Your task to perform on an android device: Show the shopping cart on target.com. Add logitech g933 to the cart on target.com Image 0: 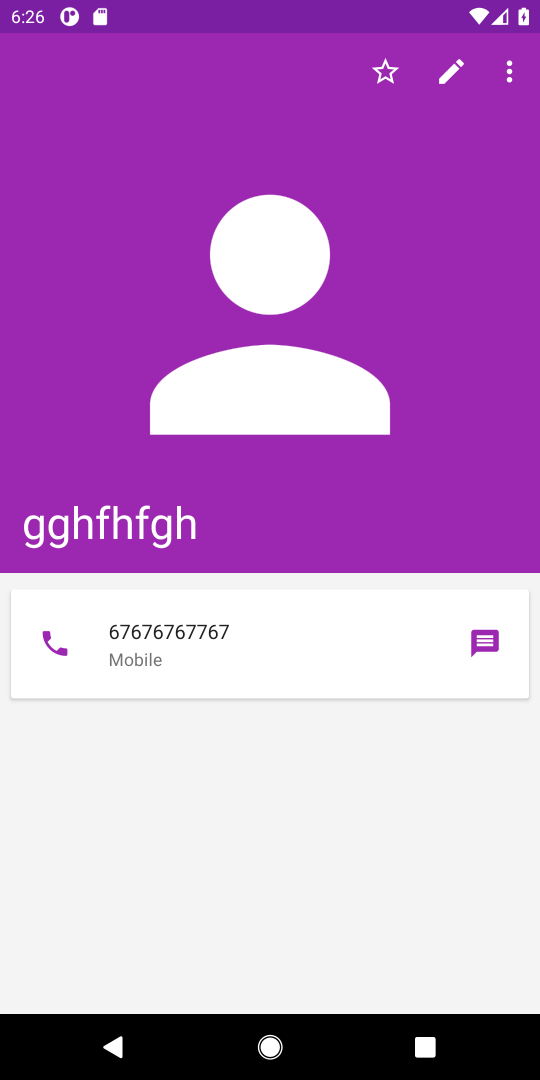
Step 0: press home button
Your task to perform on an android device: Show the shopping cart on target.com. Add logitech g933 to the cart on target.com Image 1: 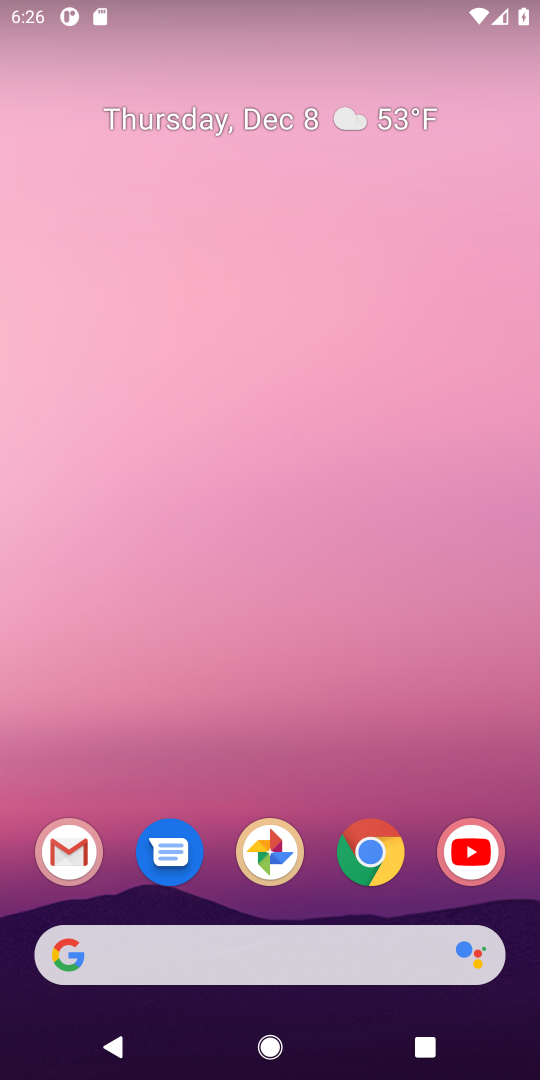
Step 1: click (293, 962)
Your task to perform on an android device: Show the shopping cart on target.com. Add logitech g933 to the cart on target.com Image 2: 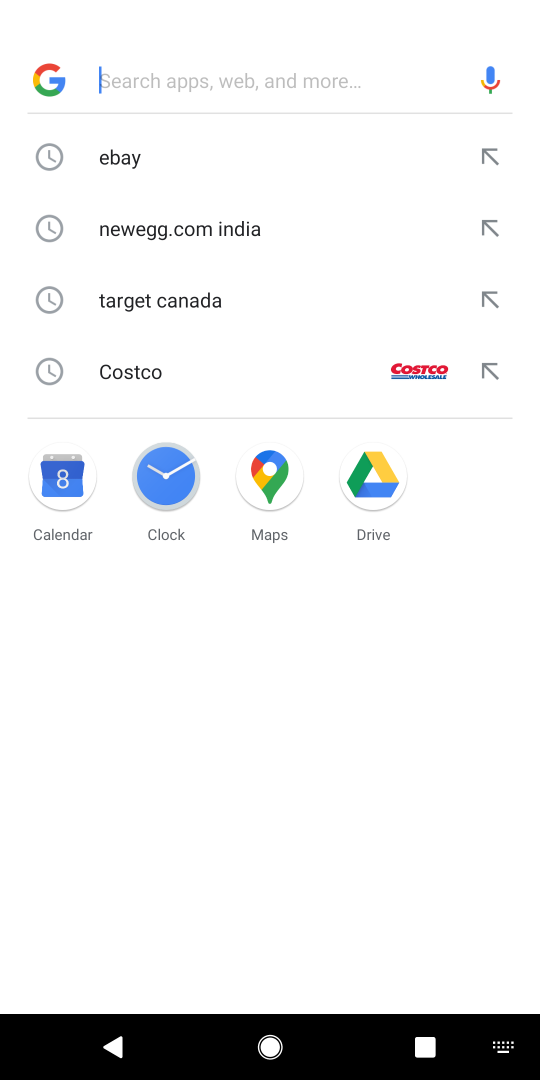
Step 2: type "target "
Your task to perform on an android device: Show the shopping cart on target.com. Add logitech g933 to the cart on target.com Image 3: 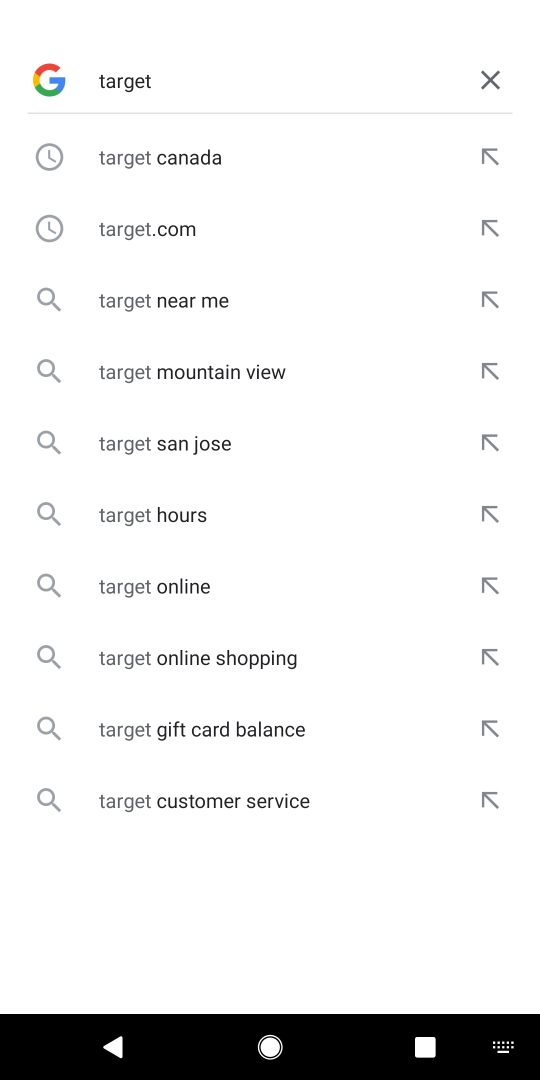
Step 3: click (140, 219)
Your task to perform on an android device: Show the shopping cart on target.com. Add logitech g933 to the cart on target.com Image 4: 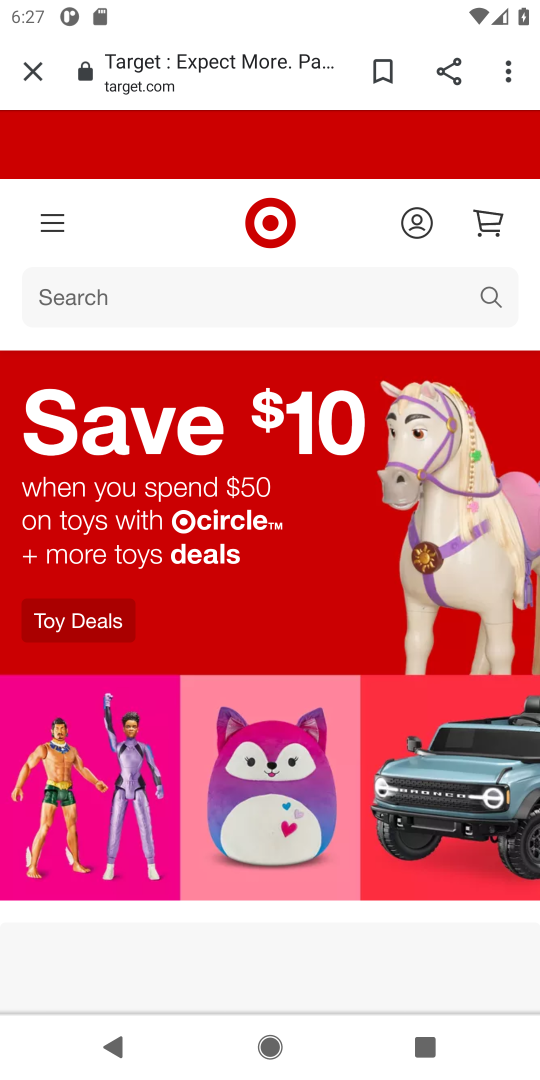
Step 4: click (231, 302)
Your task to perform on an android device: Show the shopping cart on target.com. Add logitech g933 to the cart on target.com Image 5: 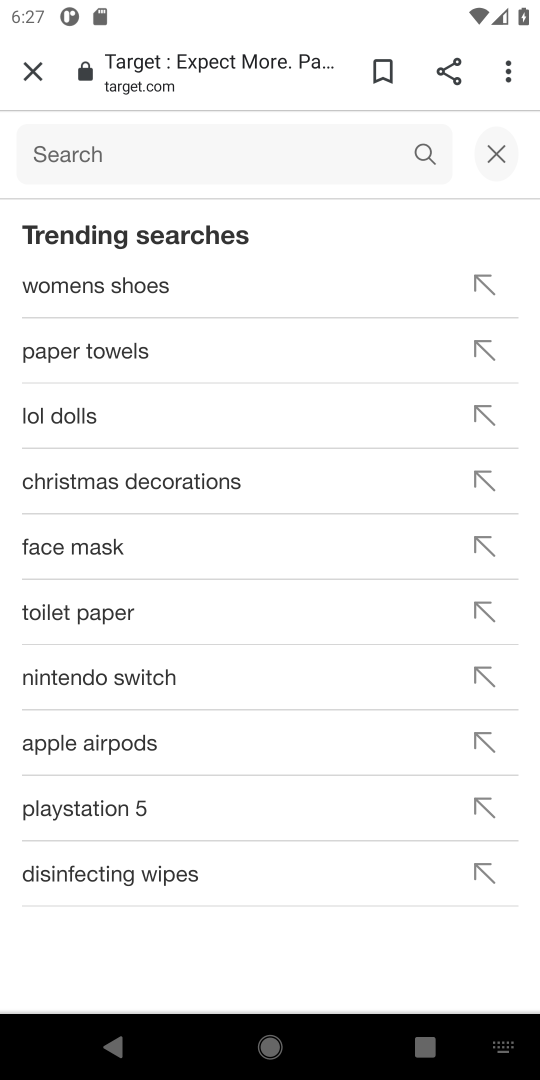
Step 5: type "logitech g933"
Your task to perform on an android device: Show the shopping cart on target.com. Add logitech g933 to the cart on target.com Image 6: 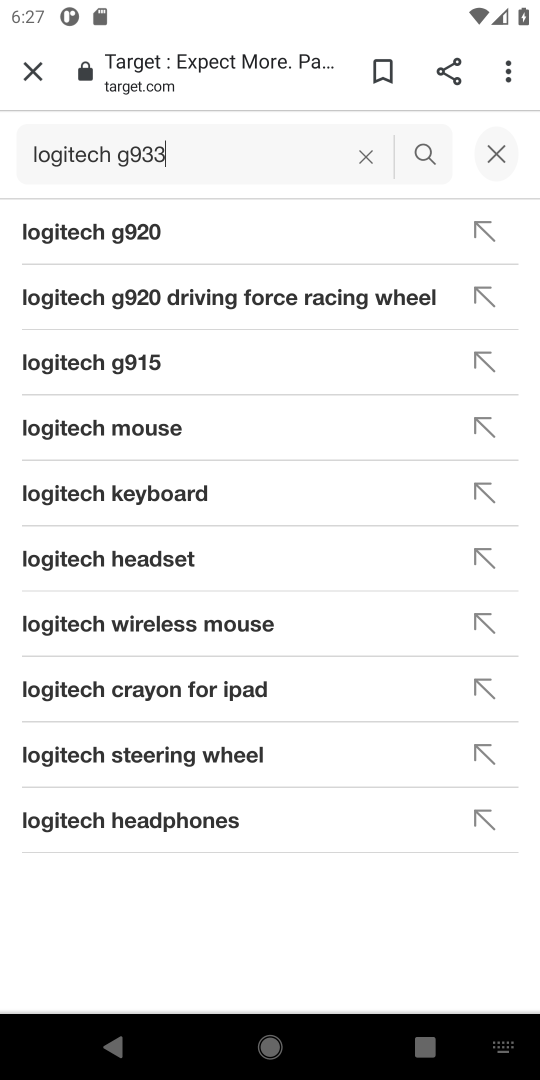
Step 6: click (414, 164)
Your task to perform on an android device: Show the shopping cart on target.com. Add logitech g933 to the cart on target.com Image 7: 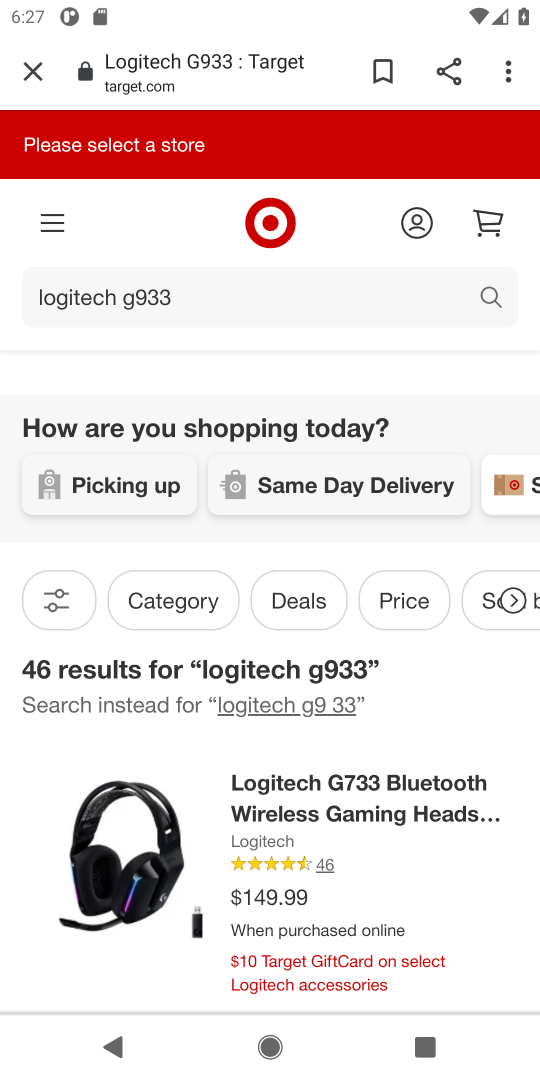
Step 7: drag from (411, 808) to (415, 553)
Your task to perform on an android device: Show the shopping cart on target.com. Add logitech g933 to the cart on target.com Image 8: 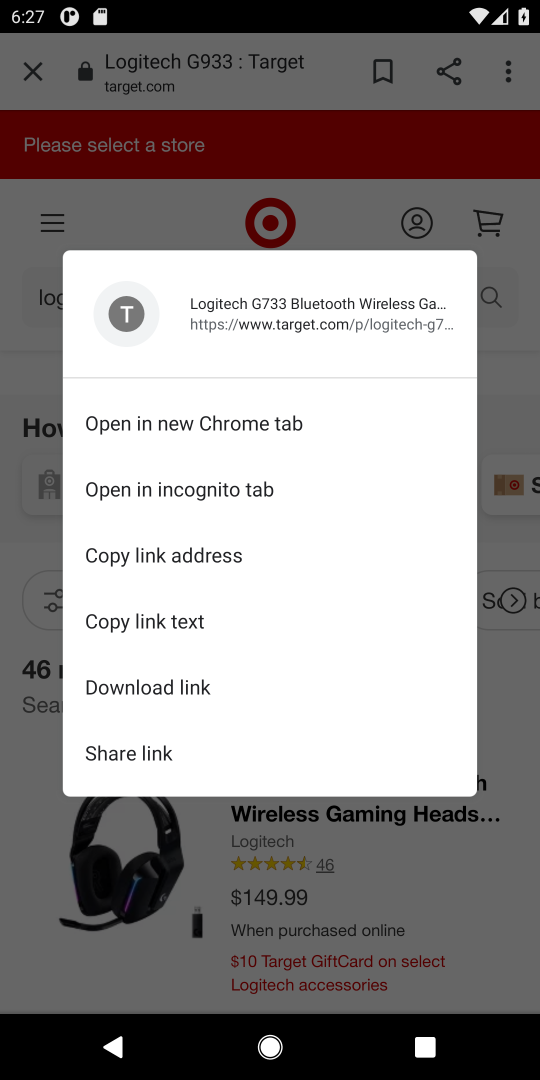
Step 8: click (442, 913)
Your task to perform on an android device: Show the shopping cart on target.com. Add logitech g933 to the cart on target.com Image 9: 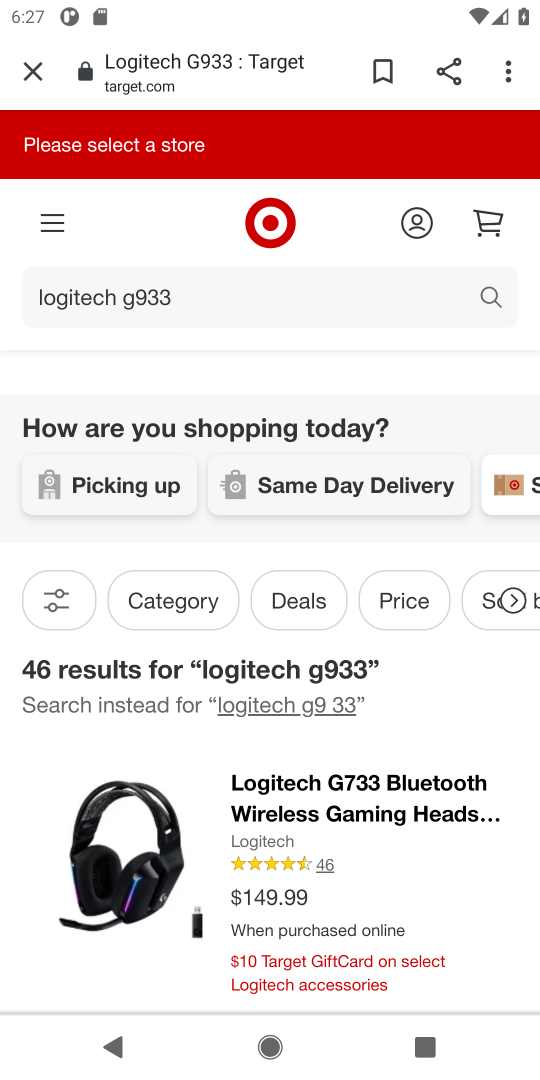
Step 9: drag from (454, 850) to (496, 408)
Your task to perform on an android device: Show the shopping cart on target.com. Add logitech g933 to the cart on target.com Image 10: 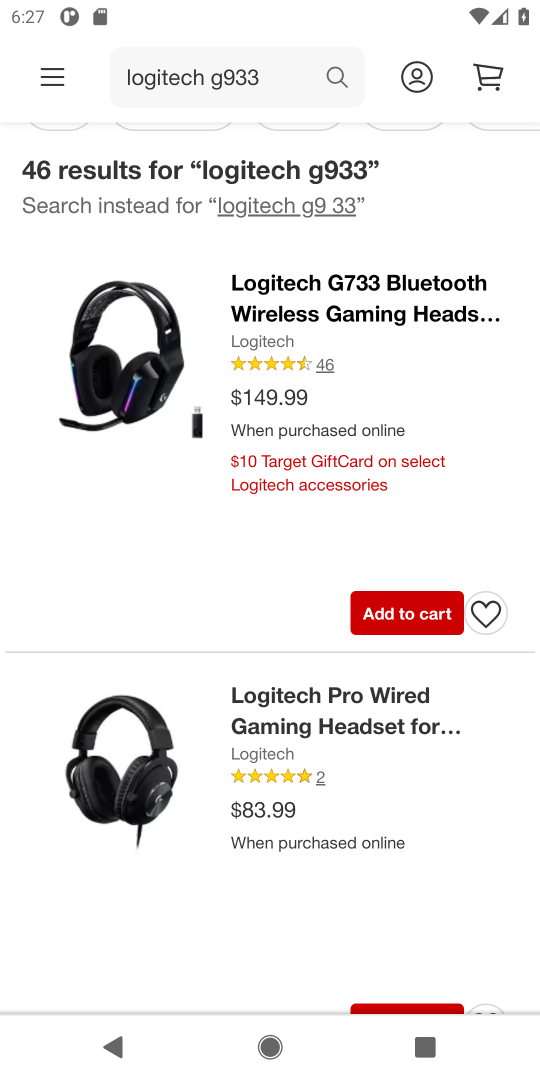
Step 10: click (357, 629)
Your task to perform on an android device: Show the shopping cart on target.com. Add logitech g933 to the cart on target.com Image 11: 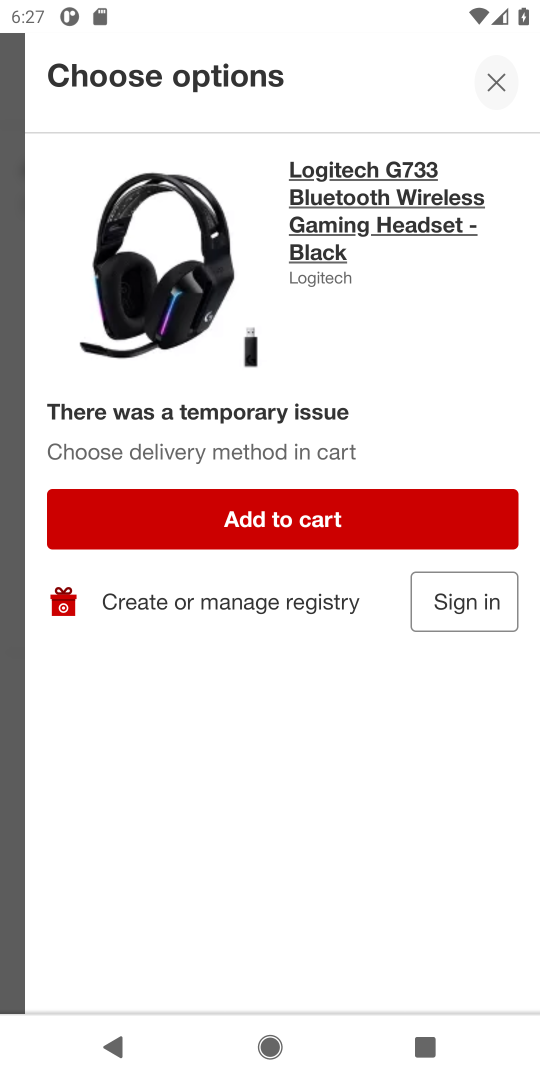
Step 11: click (415, 509)
Your task to perform on an android device: Show the shopping cart on target.com. Add logitech g933 to the cart on target.com Image 12: 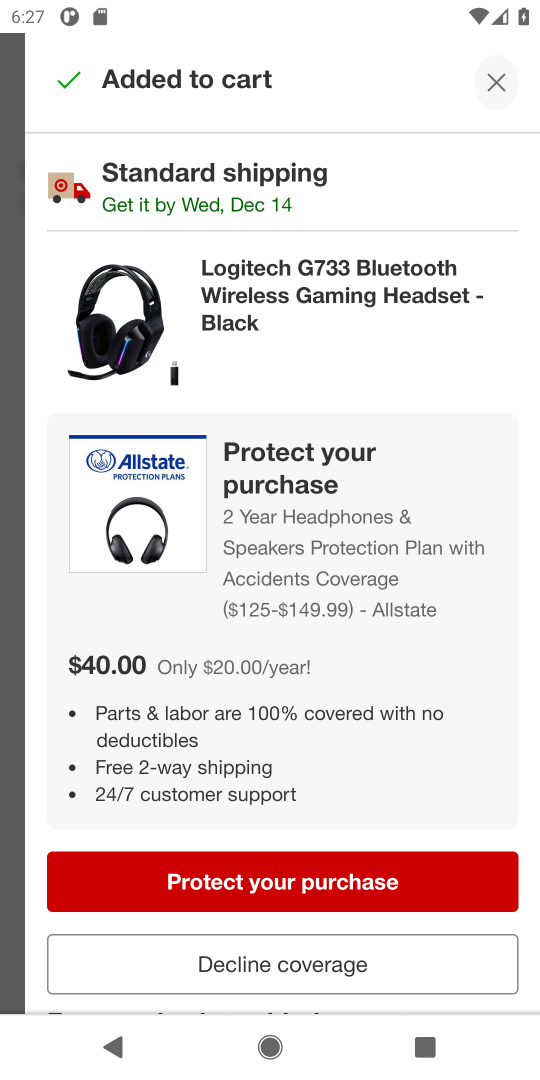
Step 12: task complete